Your task to perform on an android device: turn off airplane mode Image 0: 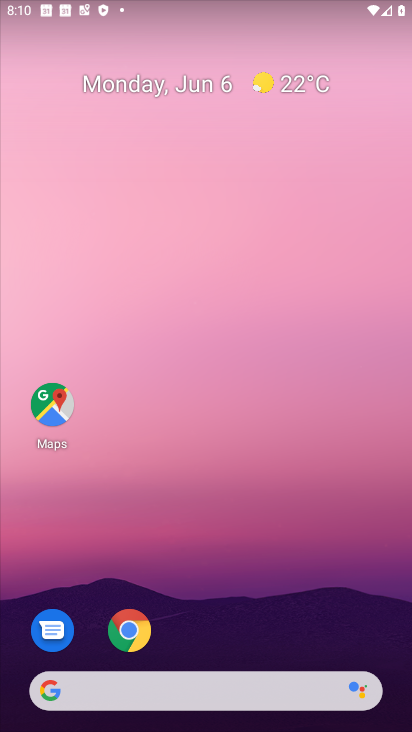
Step 0: drag from (321, 0) to (304, 411)
Your task to perform on an android device: turn off airplane mode Image 1: 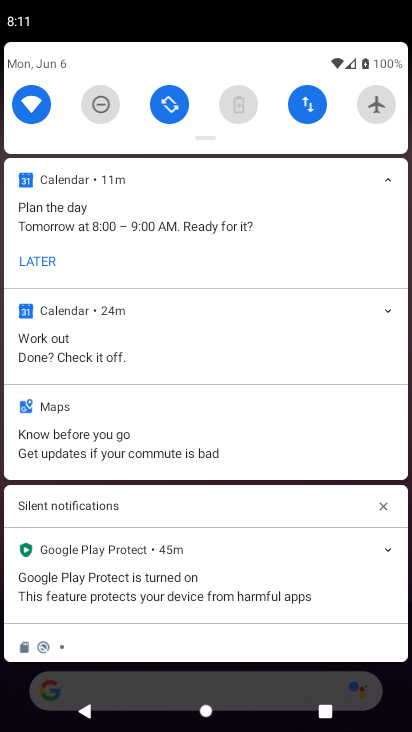
Step 1: task complete